Your task to perform on an android device: Open display settings Image 0: 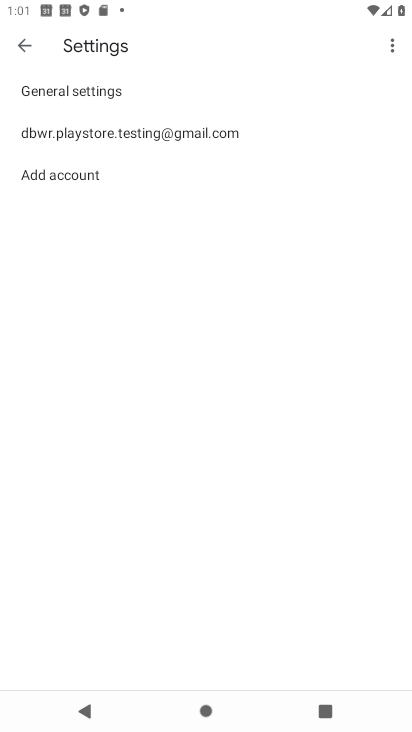
Step 0: task complete